Your task to perform on an android device: Search for Italian restaurants on Maps Image 0: 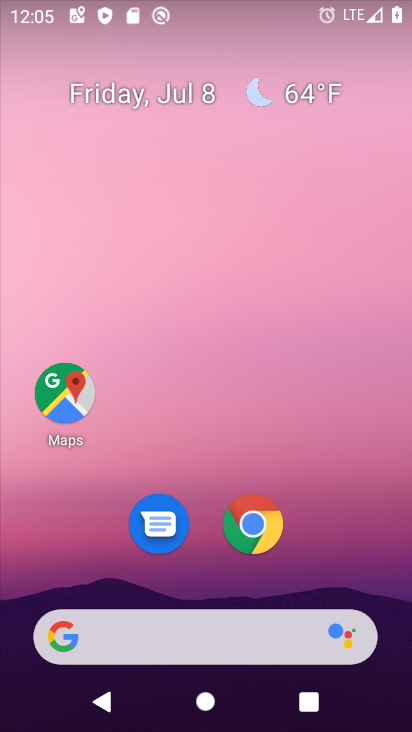
Step 0: click (67, 403)
Your task to perform on an android device: Search for Italian restaurants on Maps Image 1: 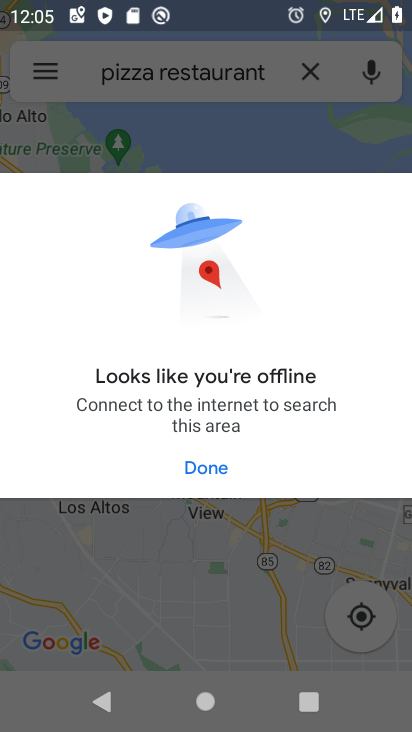
Step 1: click (225, 467)
Your task to perform on an android device: Search for Italian restaurants on Maps Image 2: 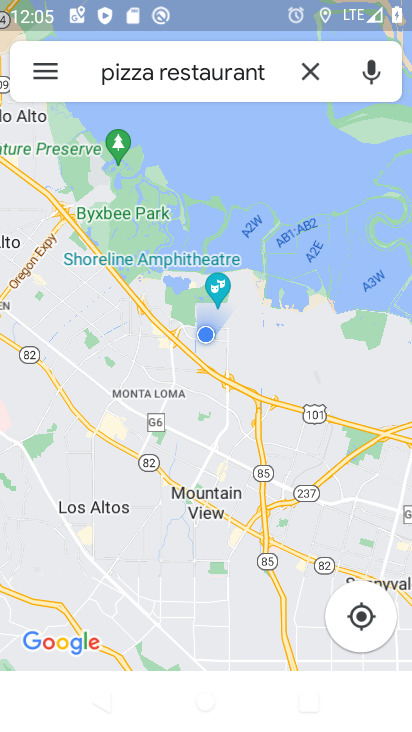
Step 2: click (311, 70)
Your task to perform on an android device: Search for Italian restaurants on Maps Image 3: 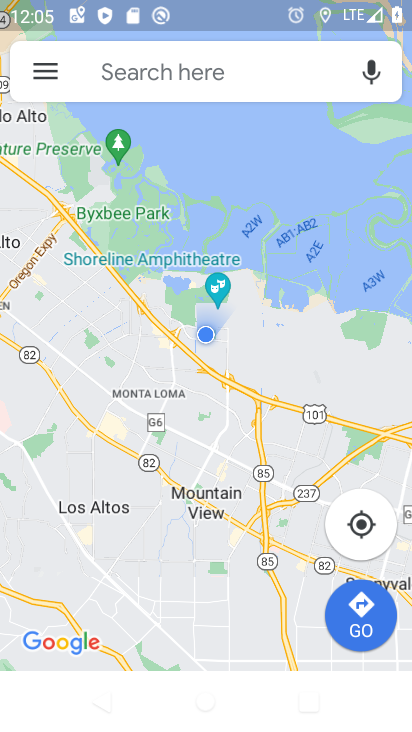
Step 3: click (198, 72)
Your task to perform on an android device: Search for Italian restaurants on Maps Image 4: 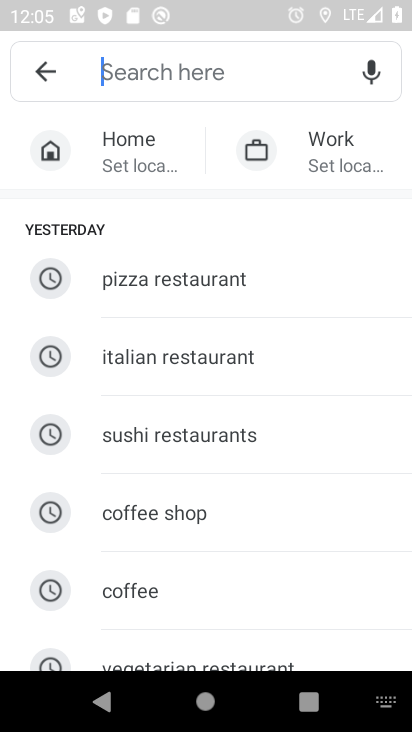
Step 4: click (187, 355)
Your task to perform on an android device: Search for Italian restaurants on Maps Image 5: 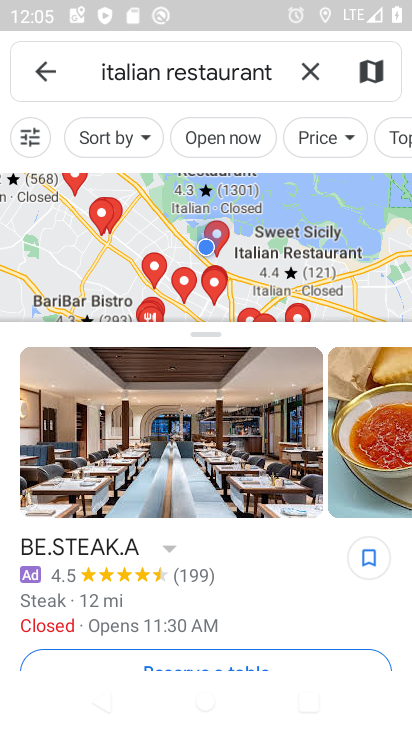
Step 5: task complete